Your task to perform on an android device: all mails in gmail Image 0: 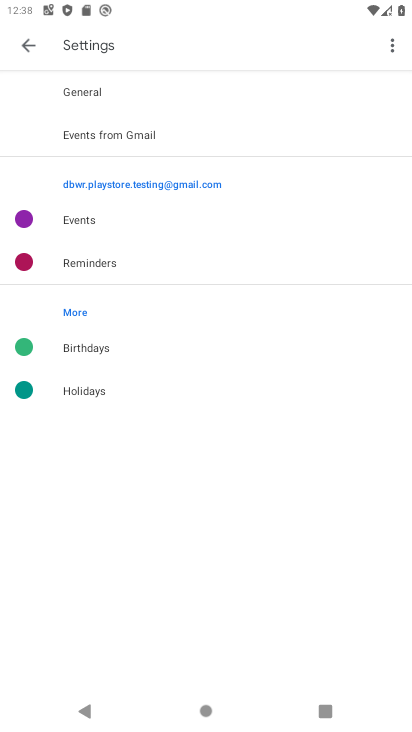
Step 0: press home button
Your task to perform on an android device: all mails in gmail Image 1: 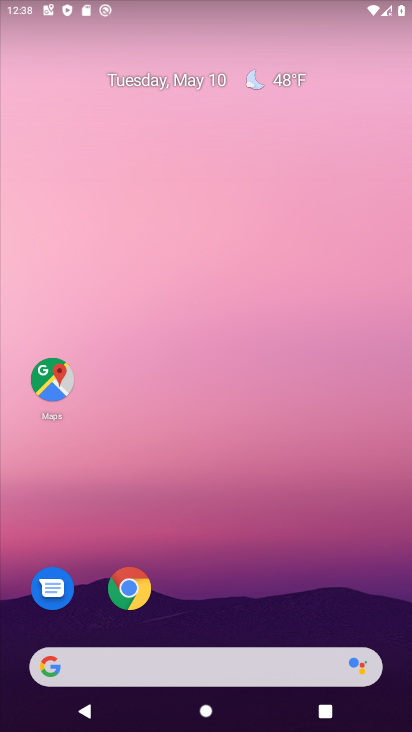
Step 1: drag from (223, 611) to (228, 445)
Your task to perform on an android device: all mails in gmail Image 2: 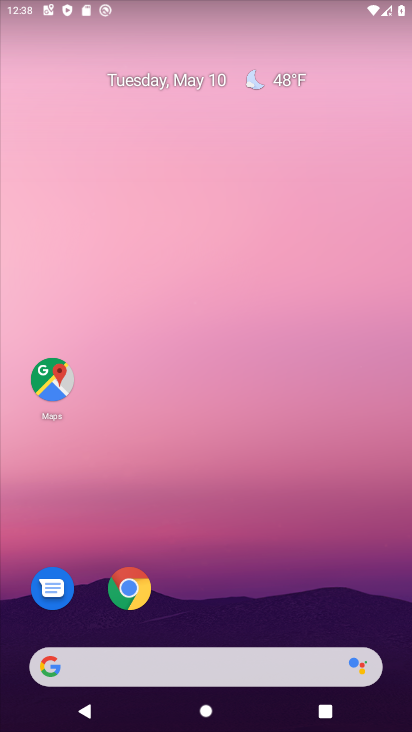
Step 2: drag from (220, 621) to (282, 116)
Your task to perform on an android device: all mails in gmail Image 3: 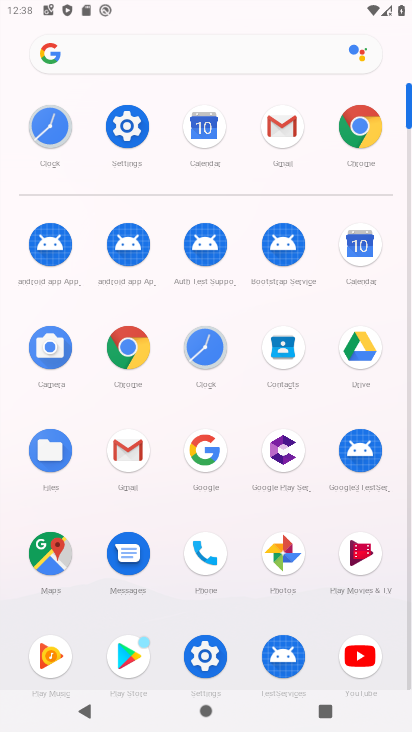
Step 3: click (269, 125)
Your task to perform on an android device: all mails in gmail Image 4: 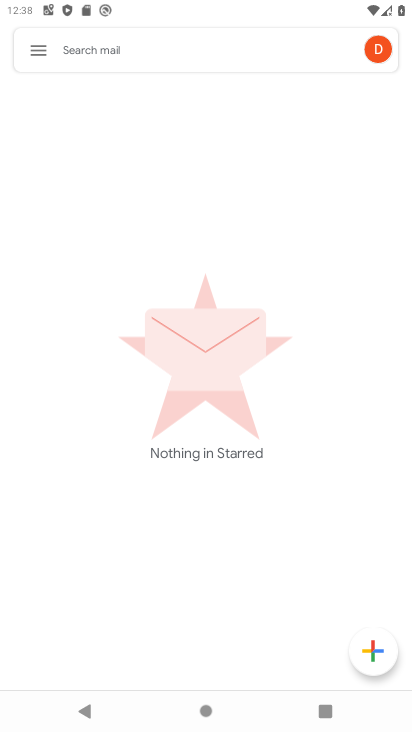
Step 4: click (32, 54)
Your task to perform on an android device: all mails in gmail Image 5: 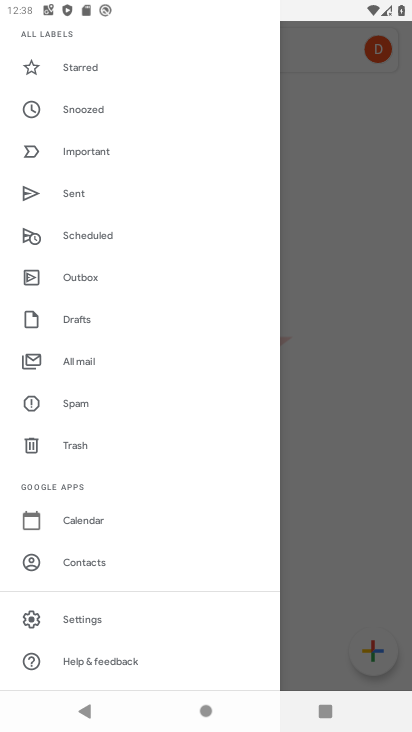
Step 5: click (119, 369)
Your task to perform on an android device: all mails in gmail Image 6: 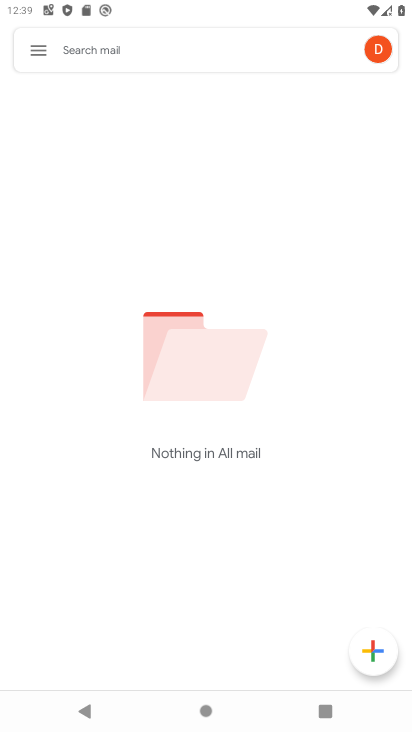
Step 6: click (31, 51)
Your task to perform on an android device: all mails in gmail Image 7: 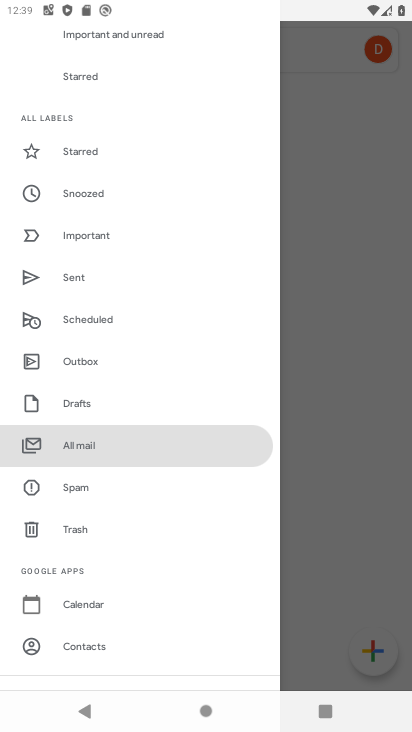
Step 7: task complete